Your task to perform on an android device: Clear all items from cart on walmart.com. Add "razer kraken" to the cart on walmart.com, then select checkout. Image 0: 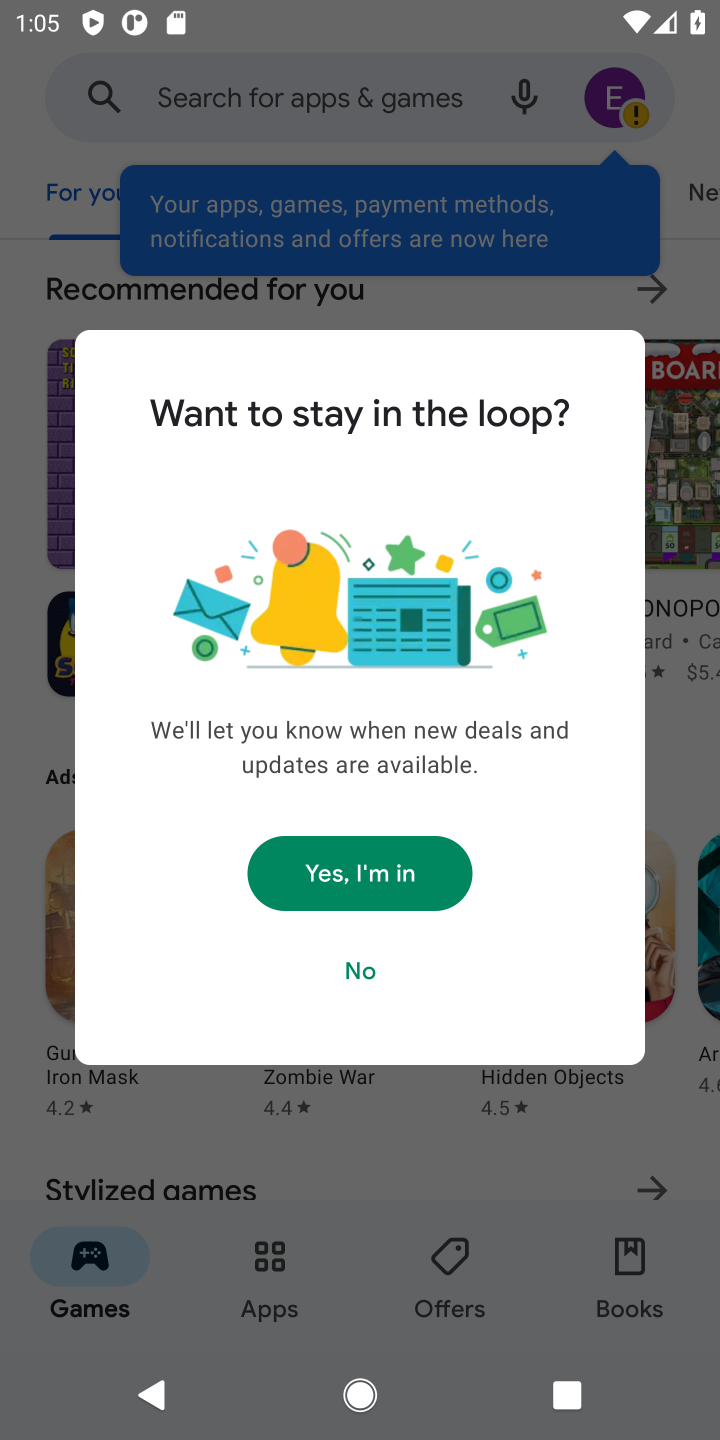
Step 0: press home button
Your task to perform on an android device: Clear all items from cart on walmart.com. Add "razer kraken" to the cart on walmart.com, then select checkout. Image 1: 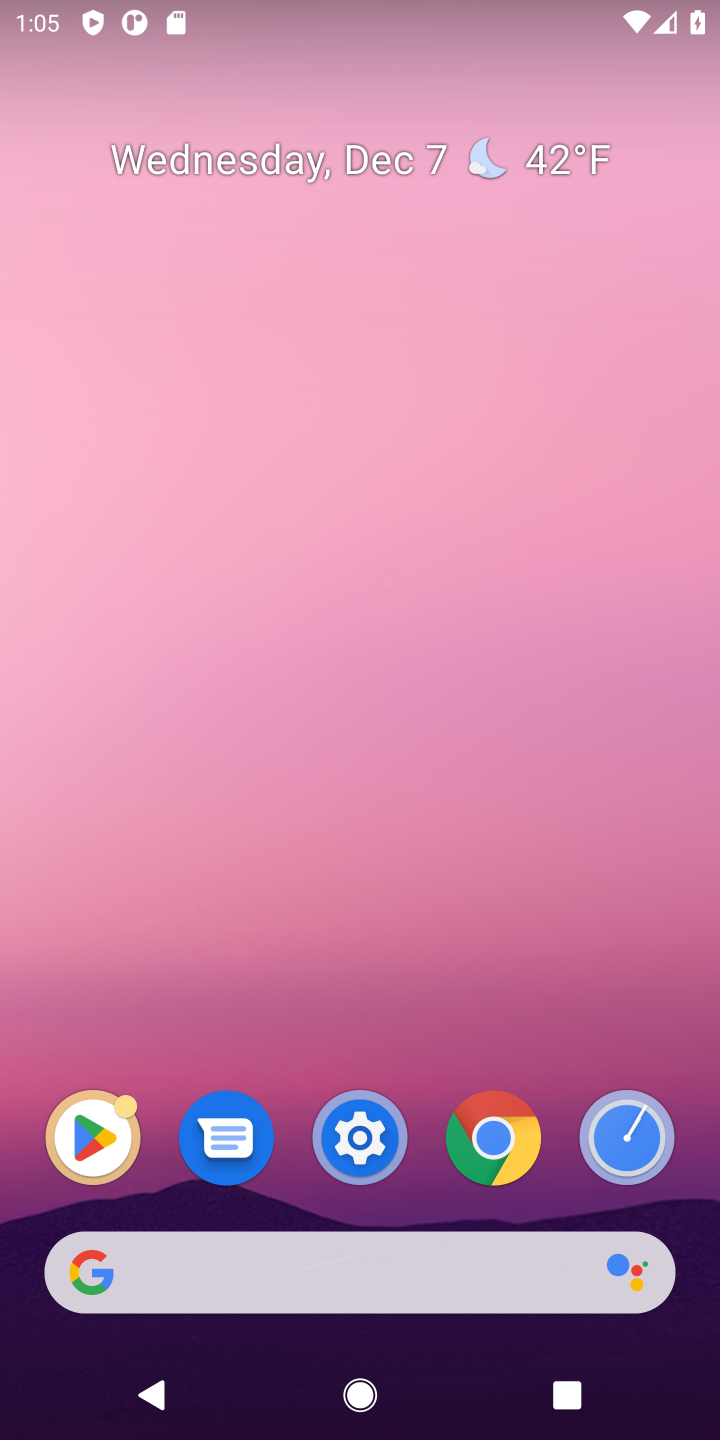
Step 1: click (318, 1308)
Your task to perform on an android device: Clear all items from cart on walmart.com. Add "razer kraken" to the cart on walmart.com, then select checkout. Image 2: 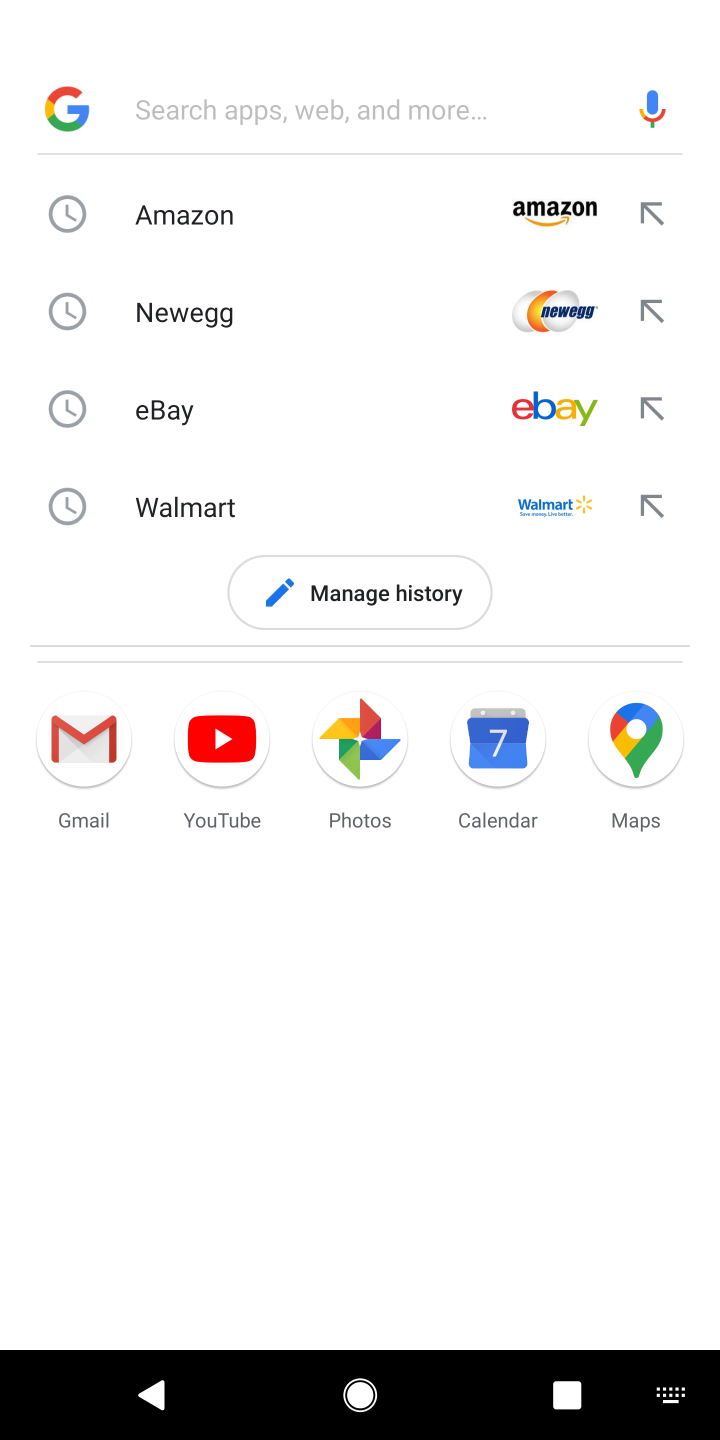
Step 2: type "walmart"
Your task to perform on an android device: Clear all items from cart on walmart.com. Add "razer kraken" to the cart on walmart.com, then select checkout. Image 3: 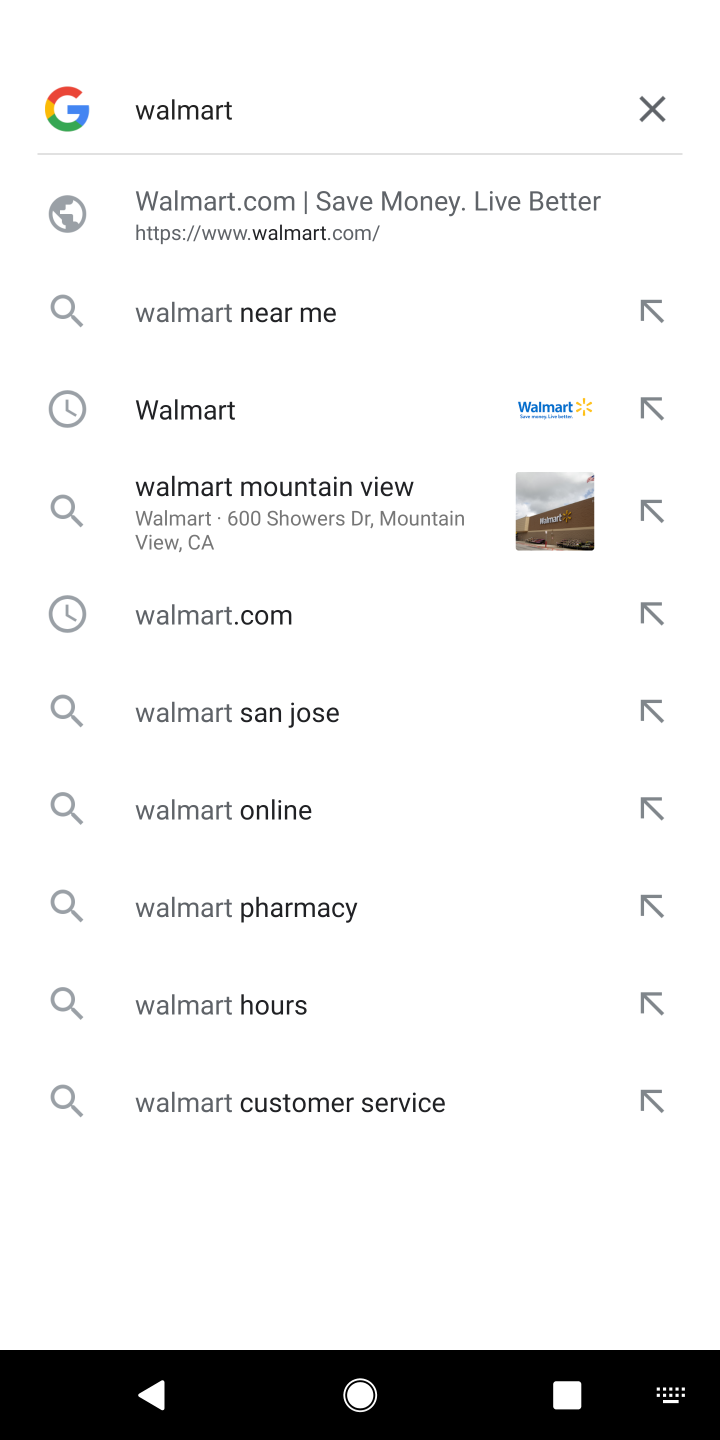
Step 3: click (329, 257)
Your task to perform on an android device: Clear all items from cart on walmart.com. Add "razer kraken" to the cart on walmart.com, then select checkout. Image 4: 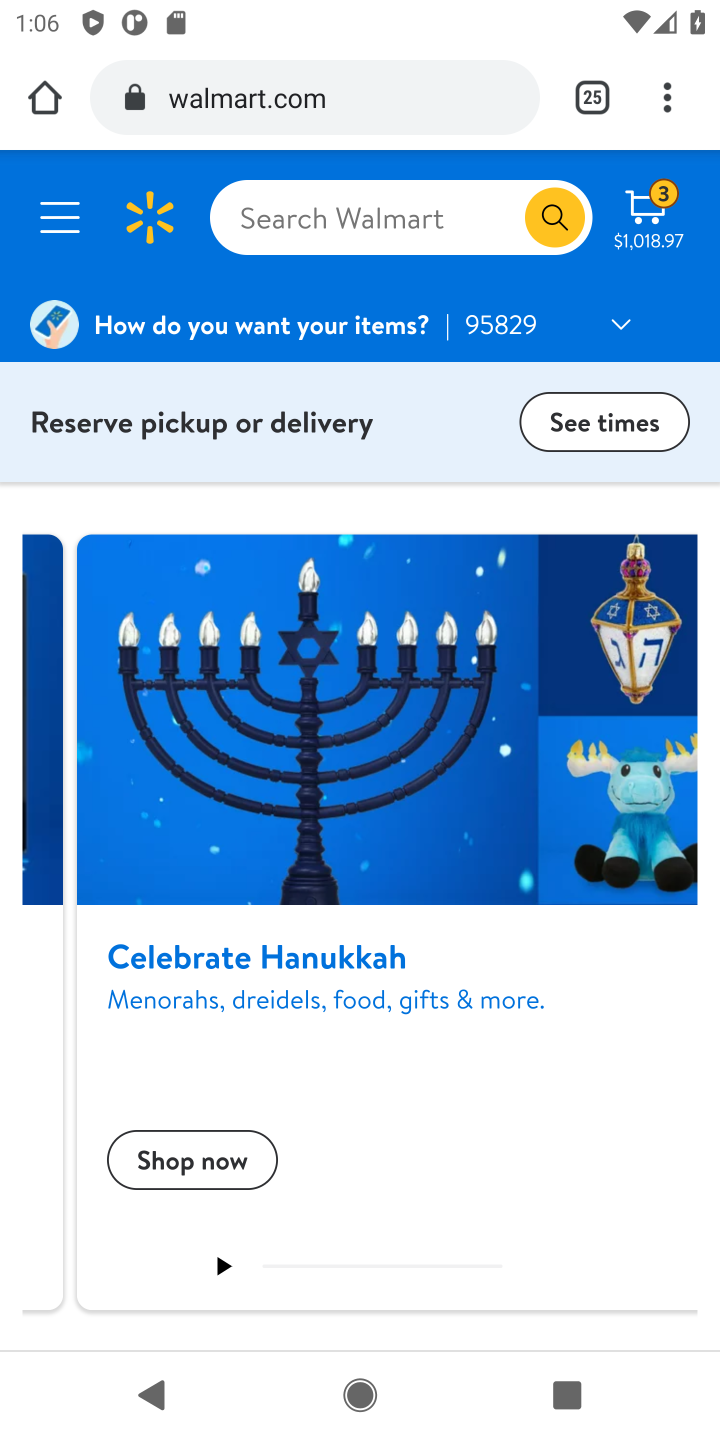
Step 4: click (321, 244)
Your task to perform on an android device: Clear all items from cart on walmart.com. Add "razer kraken" to the cart on walmart.com, then select checkout. Image 5: 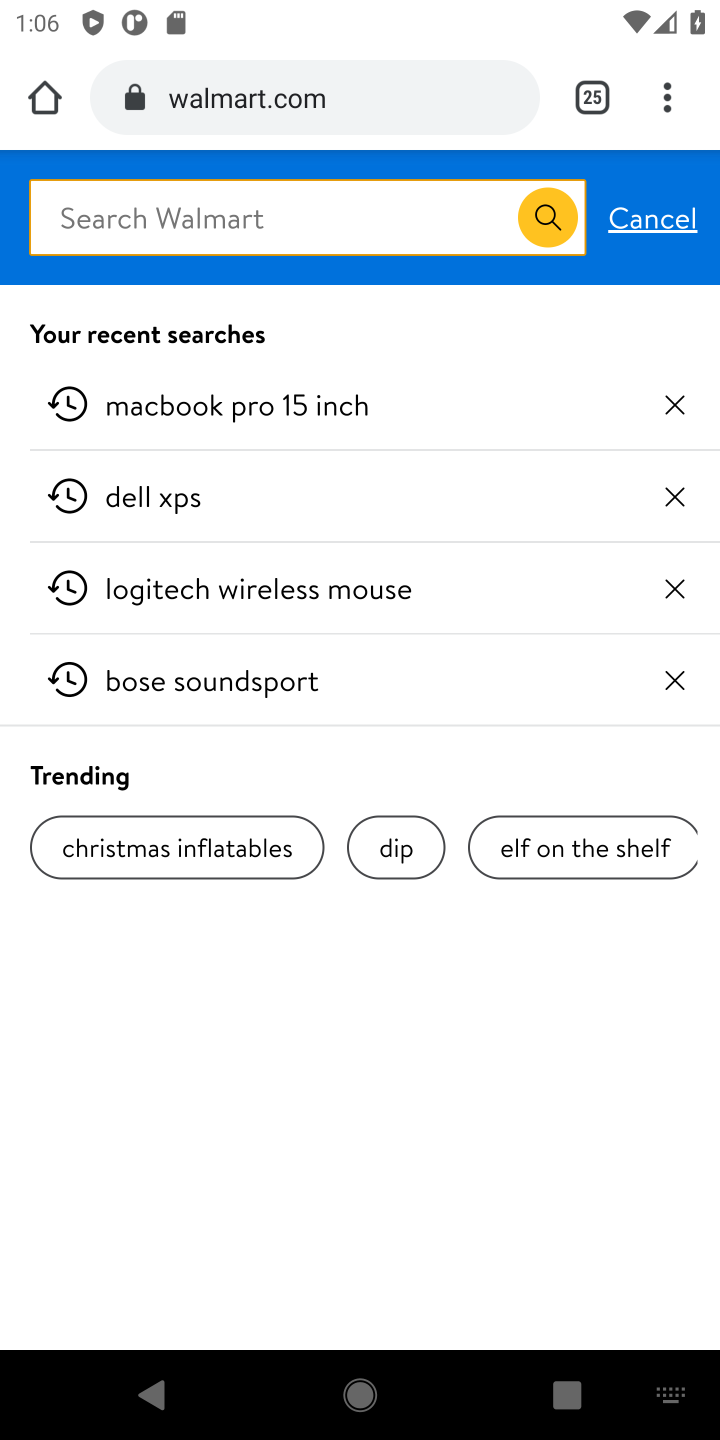
Step 5: type "razer karken"
Your task to perform on an android device: Clear all items from cart on walmart.com. Add "razer kraken" to the cart on walmart.com, then select checkout. Image 6: 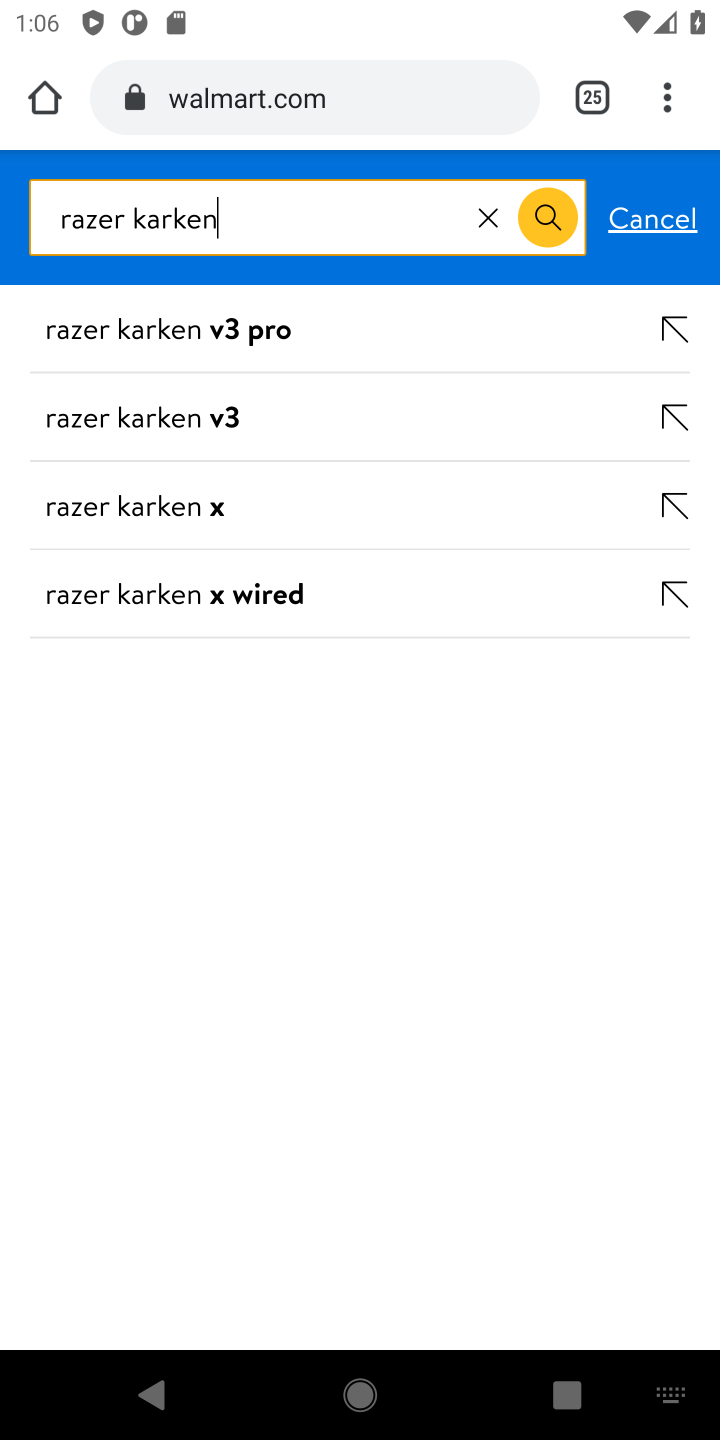
Step 6: click (232, 515)
Your task to perform on an android device: Clear all items from cart on walmart.com. Add "razer kraken" to the cart on walmart.com, then select checkout. Image 7: 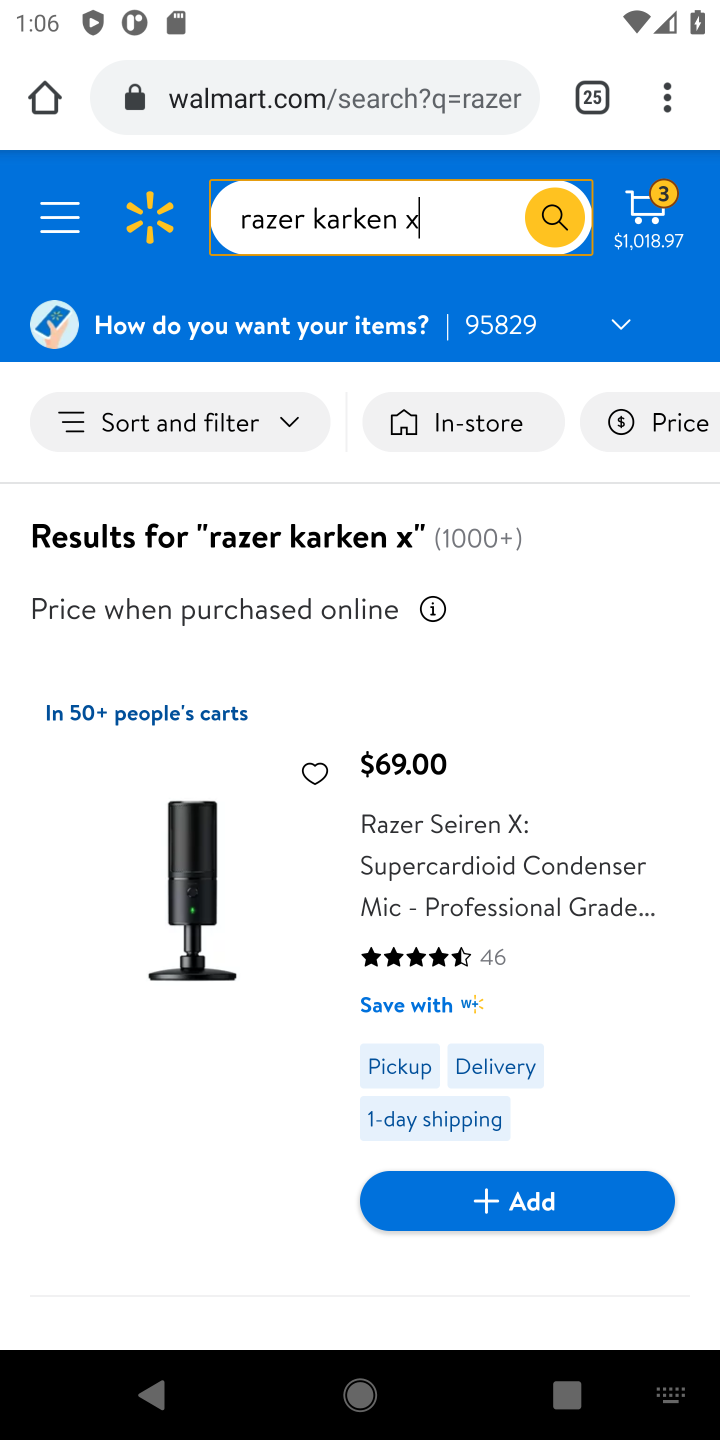
Step 7: click (462, 1197)
Your task to perform on an android device: Clear all items from cart on walmart.com. Add "razer kraken" to the cart on walmart.com, then select checkout. Image 8: 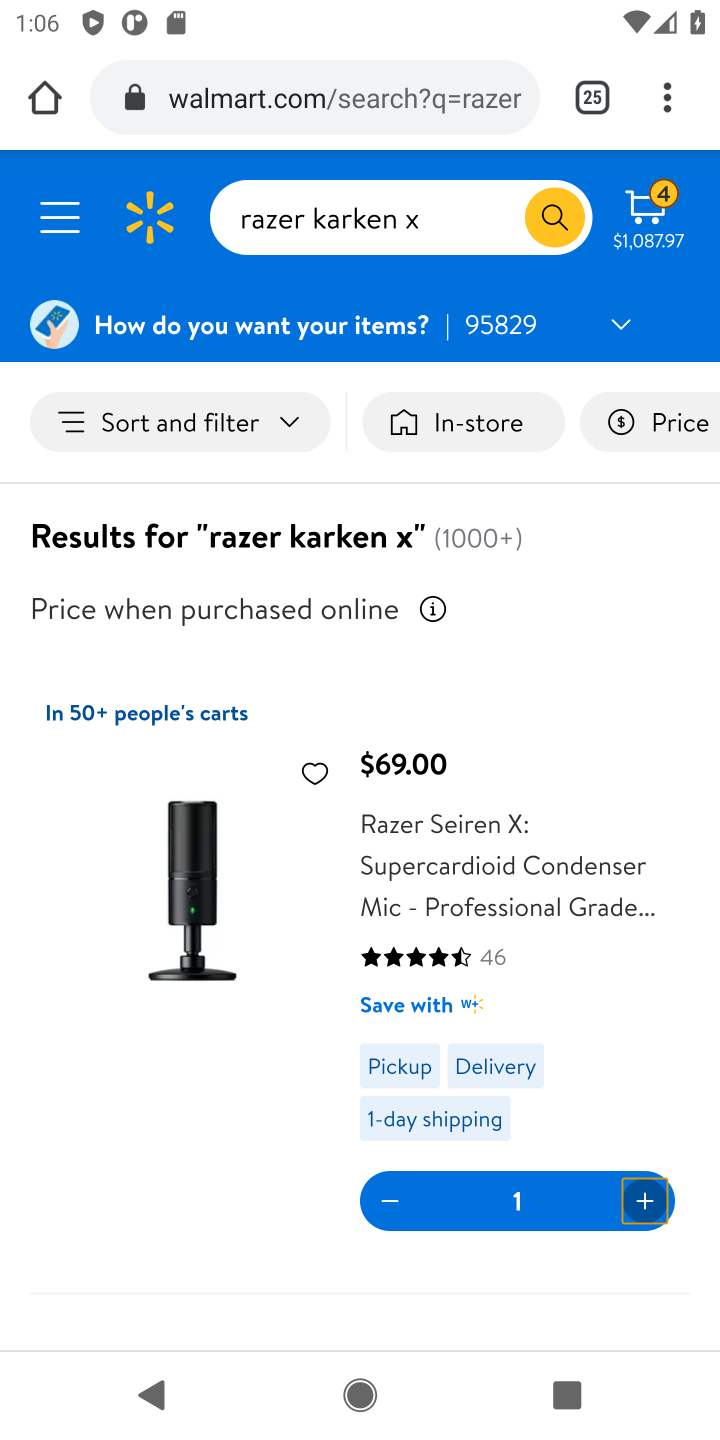
Step 8: task complete